Your task to perform on an android device: find photos in the google photos app Image 0: 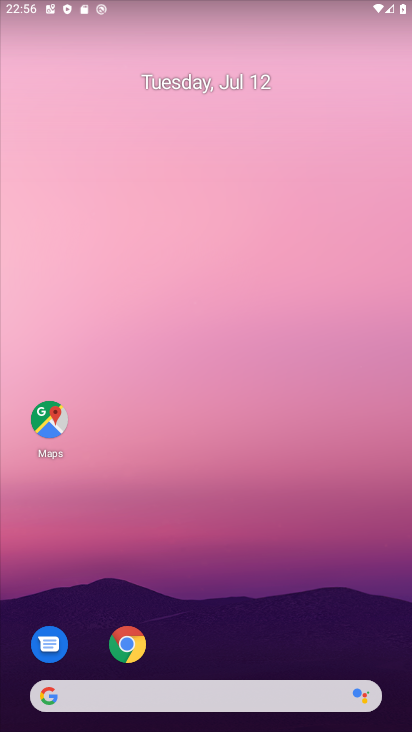
Step 0: drag from (170, 724) to (358, 79)
Your task to perform on an android device: find photos in the google photos app Image 1: 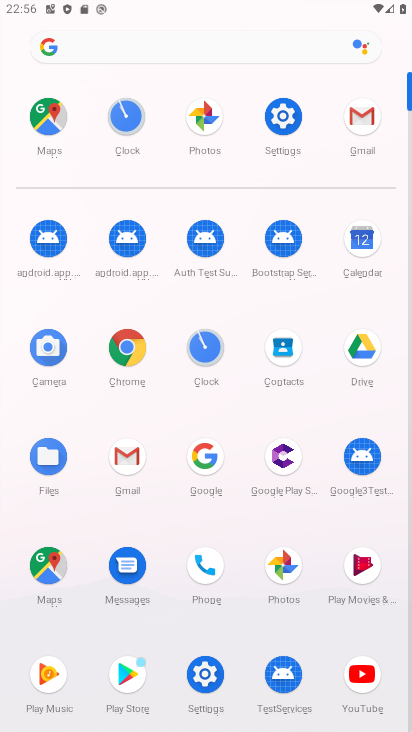
Step 1: click (195, 128)
Your task to perform on an android device: find photos in the google photos app Image 2: 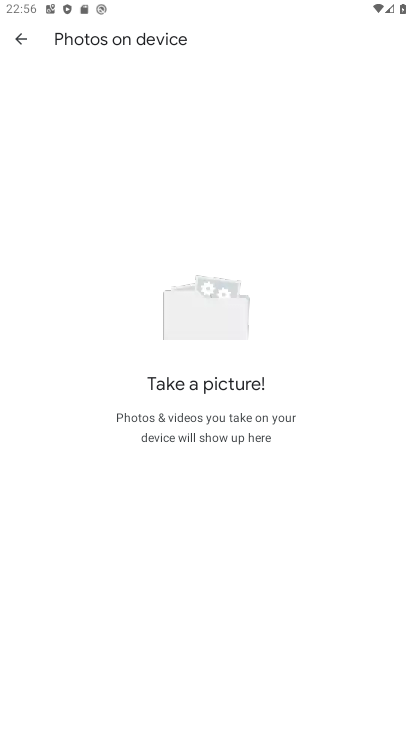
Step 2: click (21, 33)
Your task to perform on an android device: find photos in the google photos app Image 3: 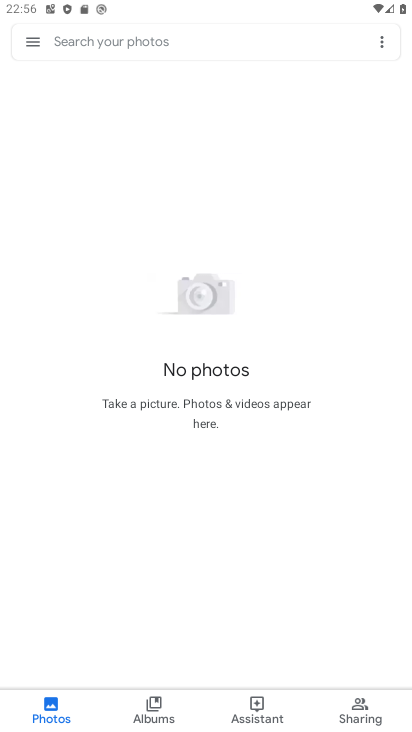
Step 3: click (140, 37)
Your task to perform on an android device: find photos in the google photos app Image 4: 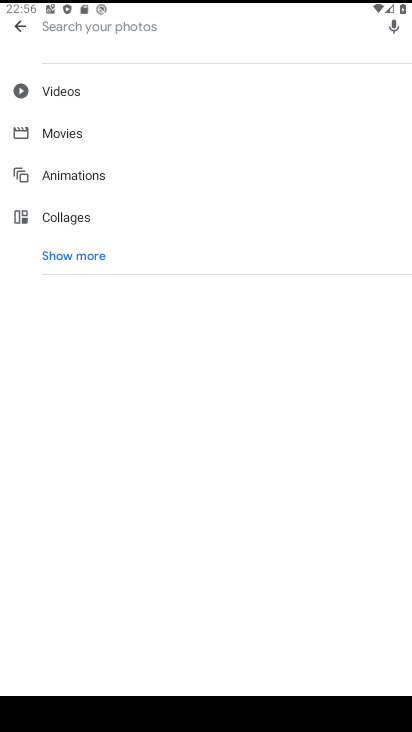
Step 4: task complete